Your task to perform on an android device: Open eBay Image 0: 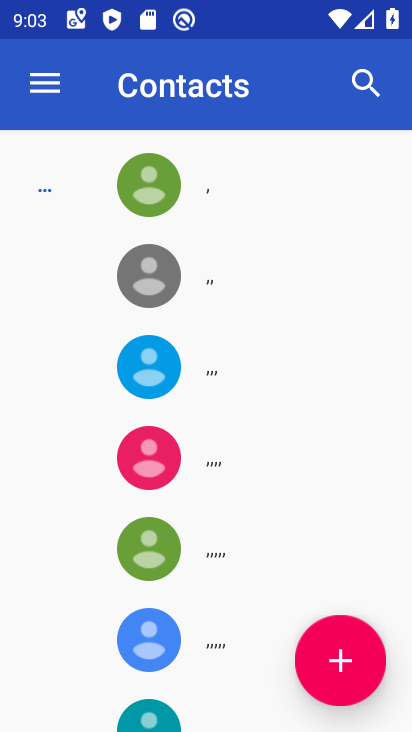
Step 0: press home button
Your task to perform on an android device: Open eBay Image 1: 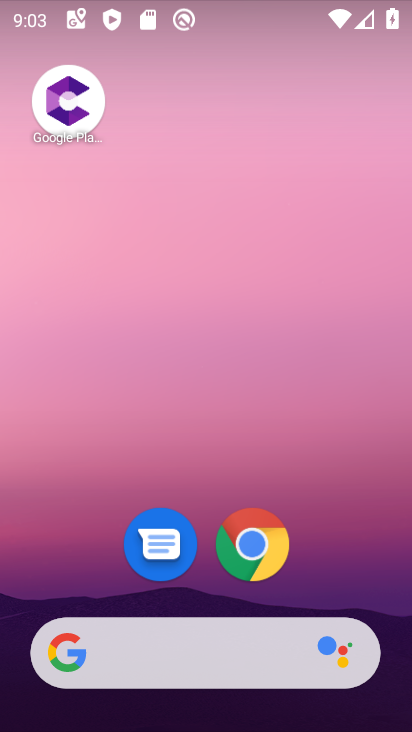
Step 1: drag from (197, 541) to (197, 215)
Your task to perform on an android device: Open eBay Image 2: 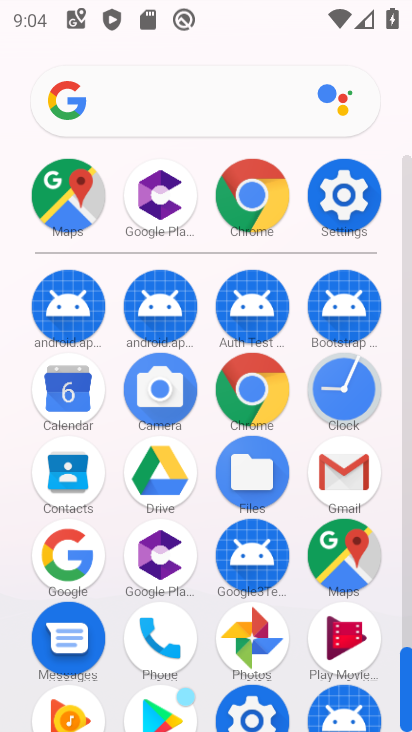
Step 2: click (248, 205)
Your task to perform on an android device: Open eBay Image 3: 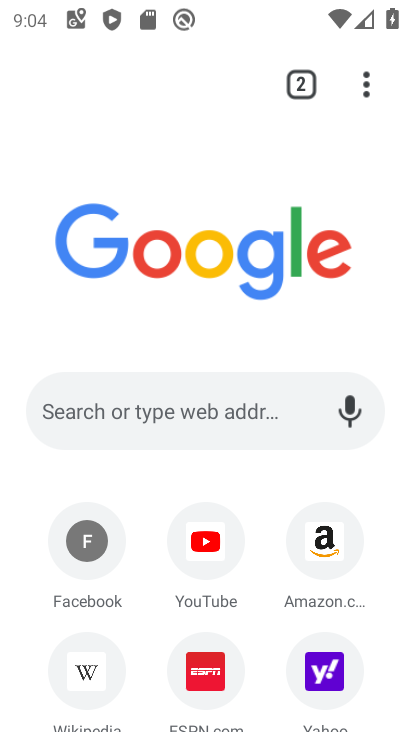
Step 3: click (58, 415)
Your task to perform on an android device: Open eBay Image 4: 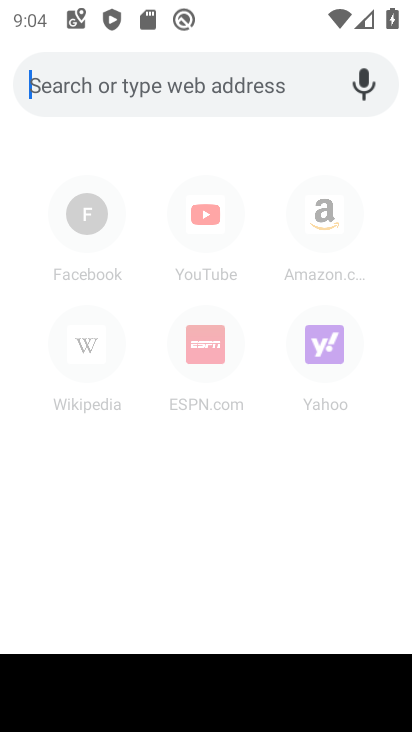
Step 4: type "eBay"
Your task to perform on an android device: Open eBay Image 5: 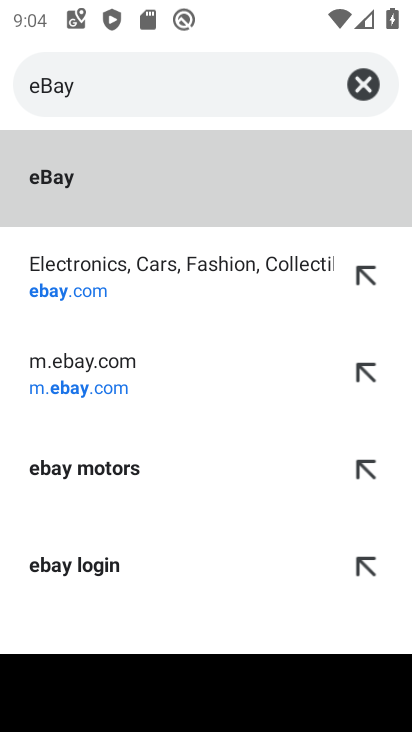
Step 5: click (163, 147)
Your task to perform on an android device: Open eBay Image 6: 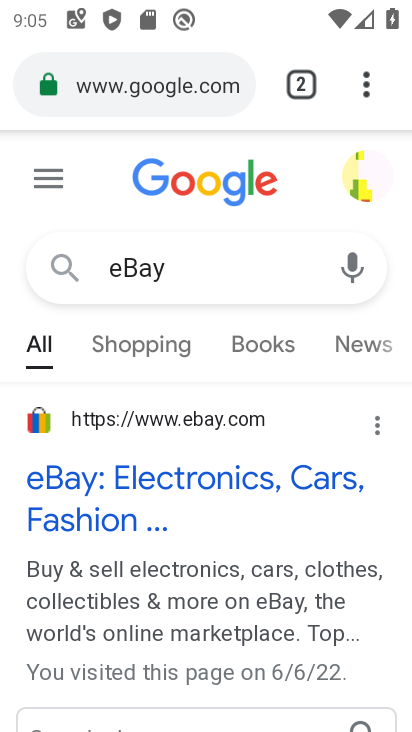
Step 6: task complete